Your task to perform on an android device: toggle wifi Image 0: 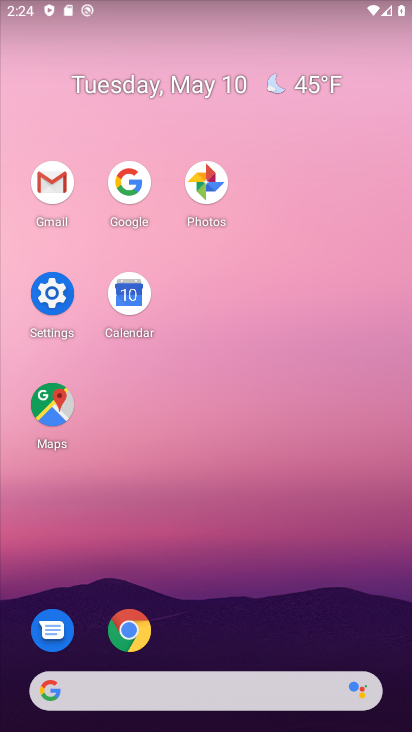
Step 0: click (67, 292)
Your task to perform on an android device: toggle wifi Image 1: 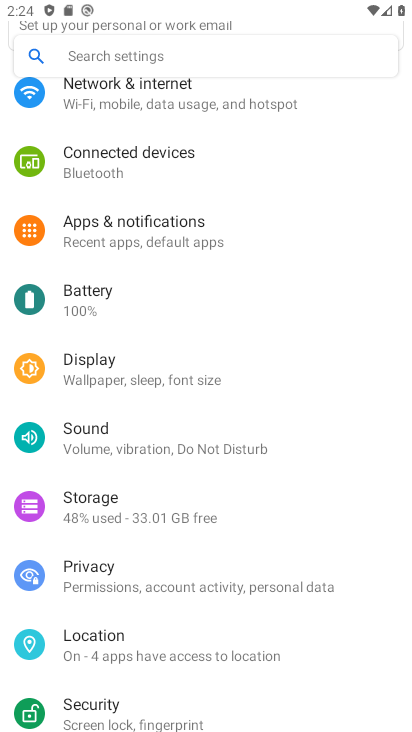
Step 1: click (199, 104)
Your task to perform on an android device: toggle wifi Image 2: 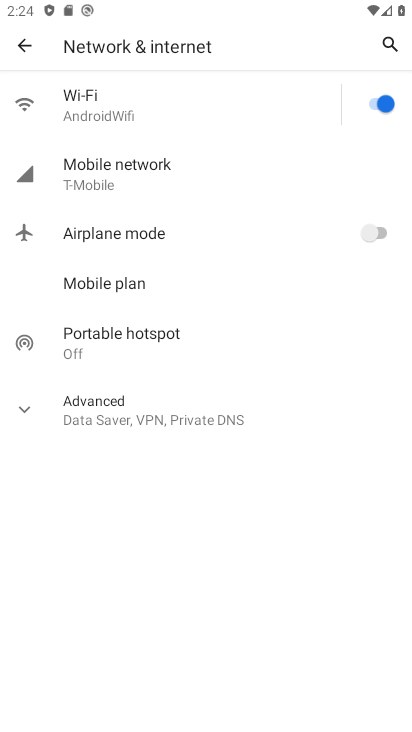
Step 2: click (381, 108)
Your task to perform on an android device: toggle wifi Image 3: 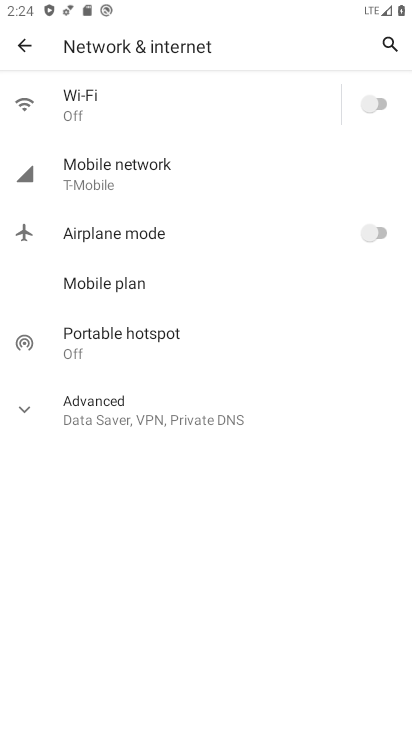
Step 3: task complete